Your task to perform on an android device: What is the recent news? Image 0: 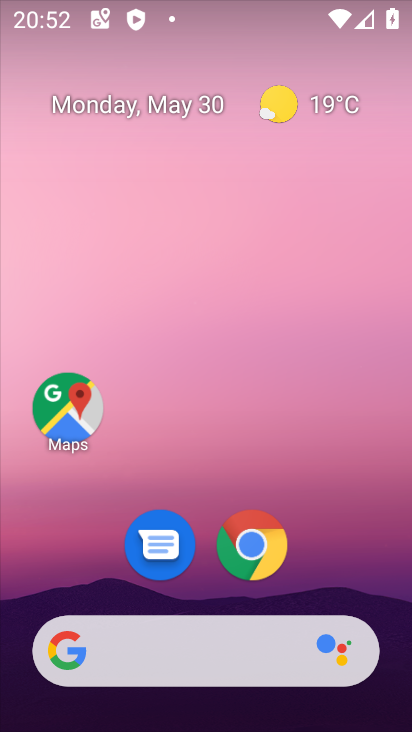
Step 0: click (200, 636)
Your task to perform on an android device: What is the recent news? Image 1: 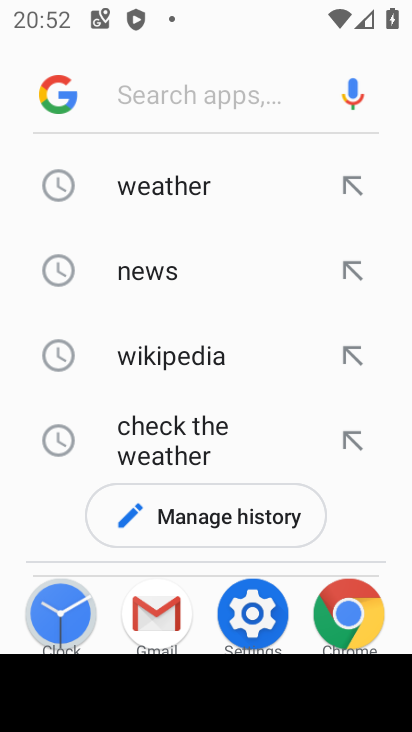
Step 1: type "recent news"
Your task to perform on an android device: What is the recent news? Image 2: 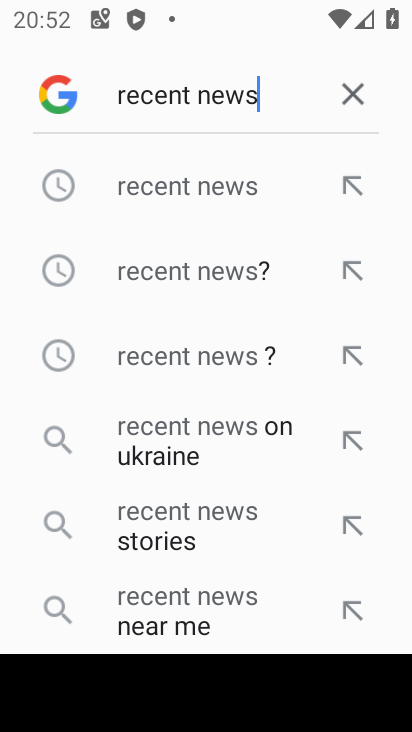
Step 2: click (233, 184)
Your task to perform on an android device: What is the recent news? Image 3: 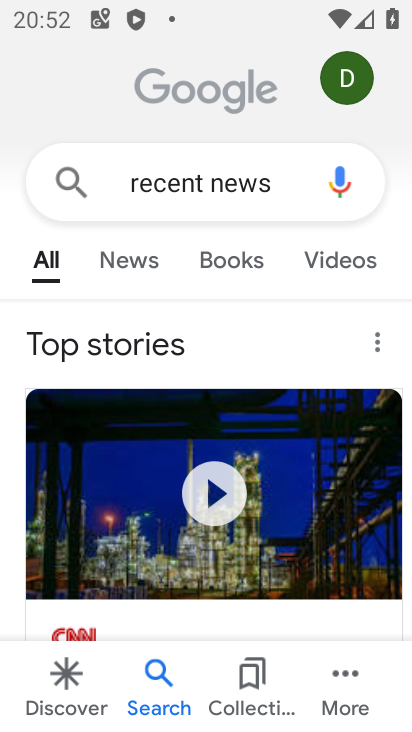
Step 3: click (136, 256)
Your task to perform on an android device: What is the recent news? Image 4: 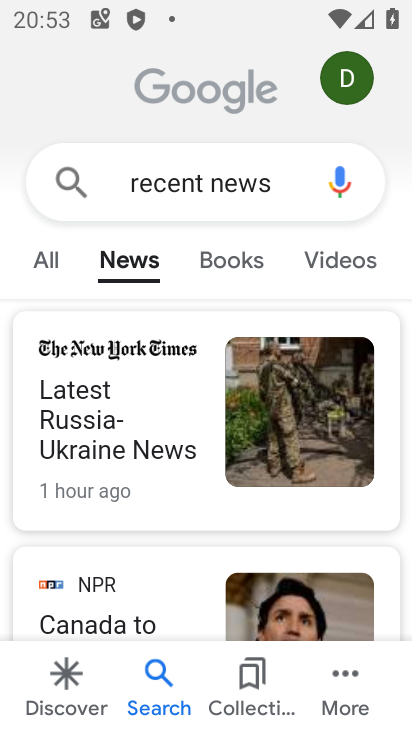
Step 4: task complete